Your task to perform on an android device: refresh tabs in the chrome app Image 0: 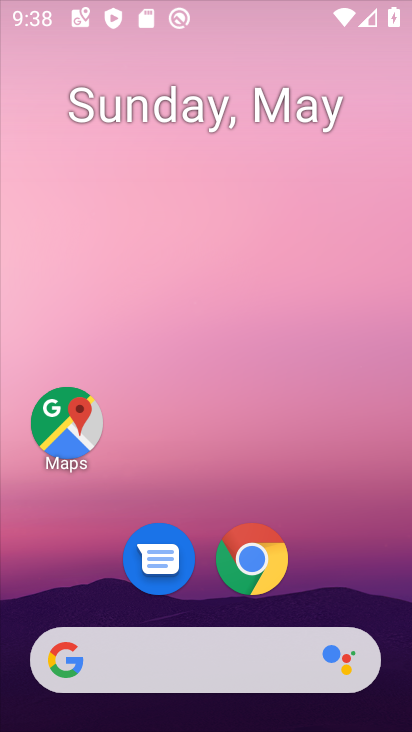
Step 0: press home button
Your task to perform on an android device: refresh tabs in the chrome app Image 1: 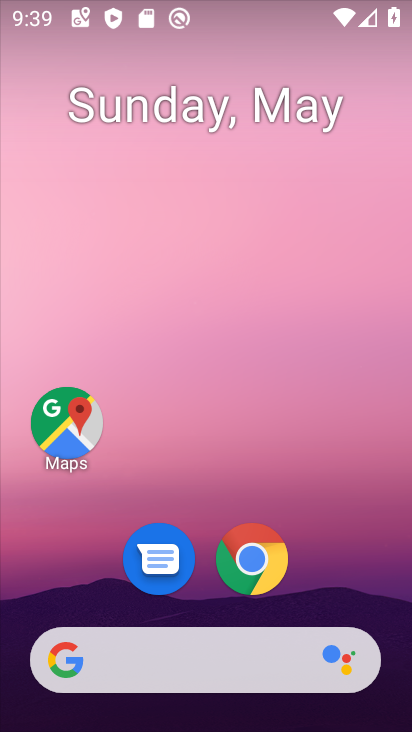
Step 1: click (281, 570)
Your task to perform on an android device: refresh tabs in the chrome app Image 2: 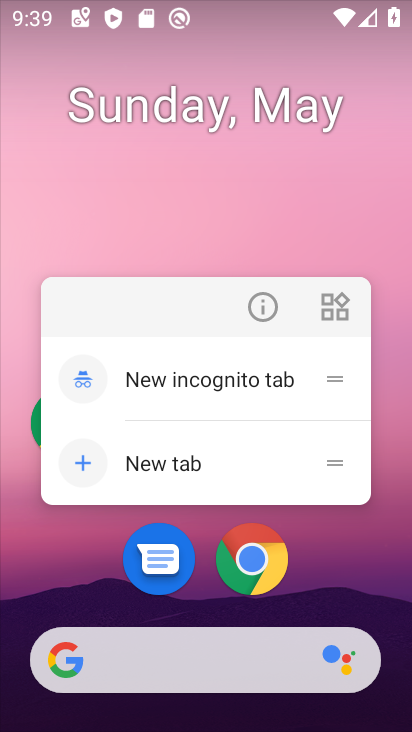
Step 2: click (257, 565)
Your task to perform on an android device: refresh tabs in the chrome app Image 3: 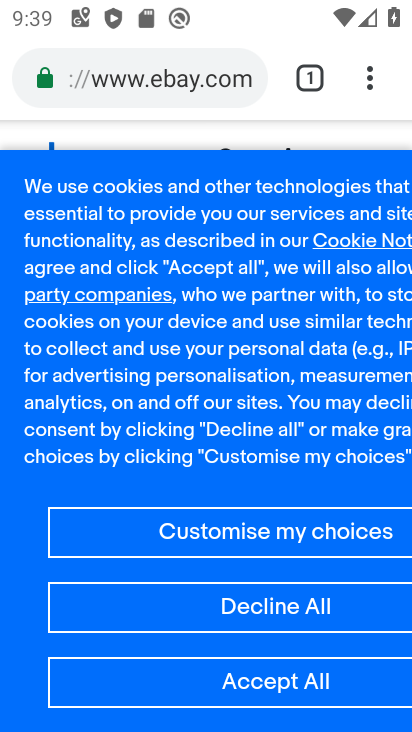
Step 3: click (368, 71)
Your task to perform on an android device: refresh tabs in the chrome app Image 4: 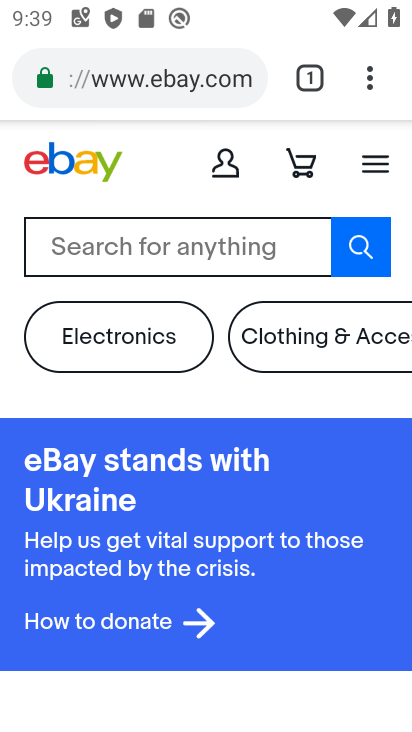
Step 4: click (366, 74)
Your task to perform on an android device: refresh tabs in the chrome app Image 5: 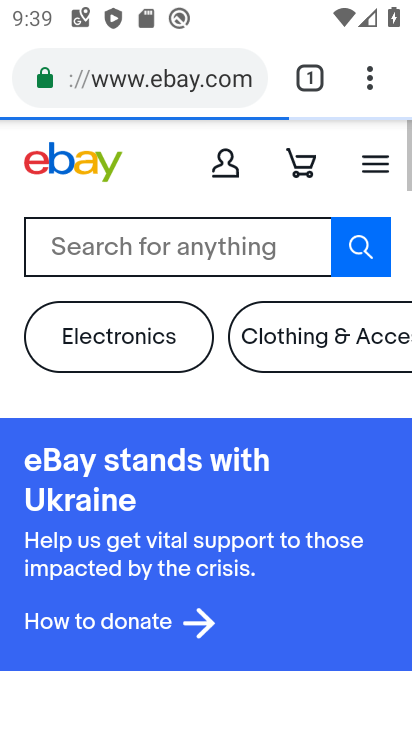
Step 5: click (366, 74)
Your task to perform on an android device: refresh tabs in the chrome app Image 6: 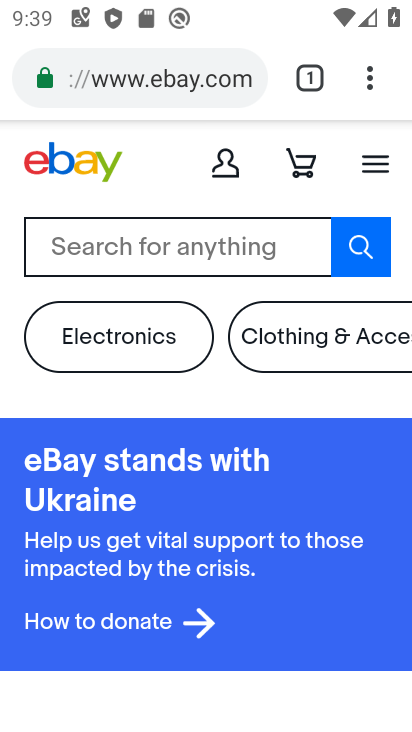
Step 6: task complete